Your task to perform on an android device: open app "Airtel Thanks" (install if not already installed) Image 0: 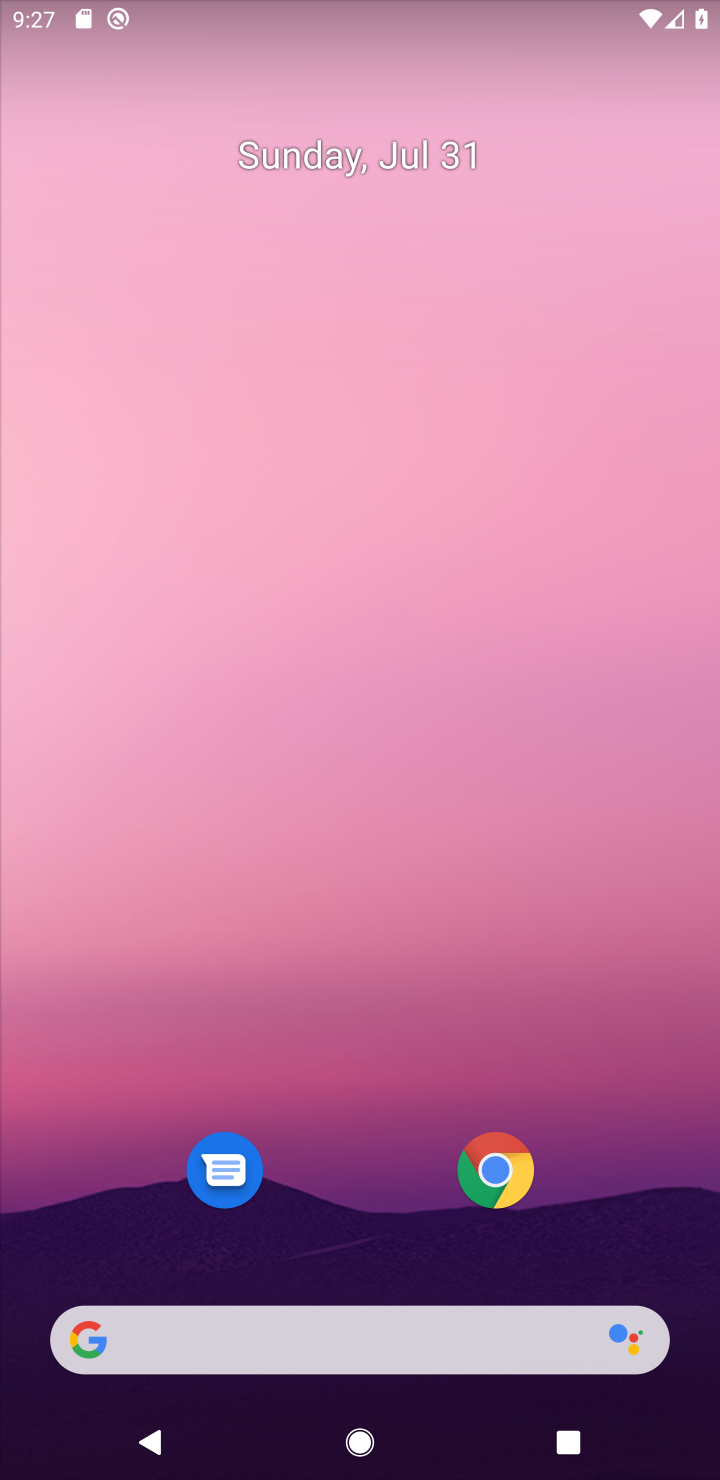
Step 0: press home button
Your task to perform on an android device: open app "Airtel Thanks" (install if not already installed) Image 1: 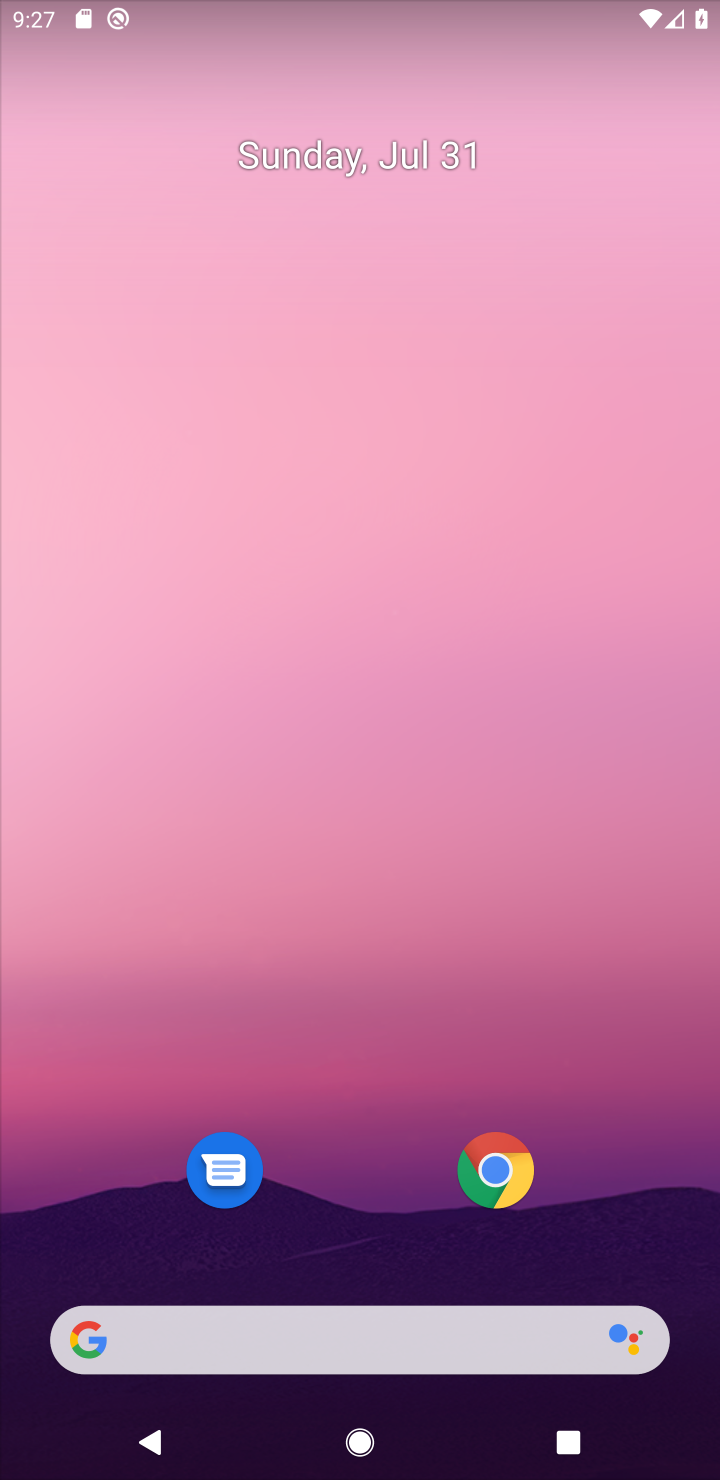
Step 1: drag from (655, 1228) to (462, 131)
Your task to perform on an android device: open app "Airtel Thanks" (install if not already installed) Image 2: 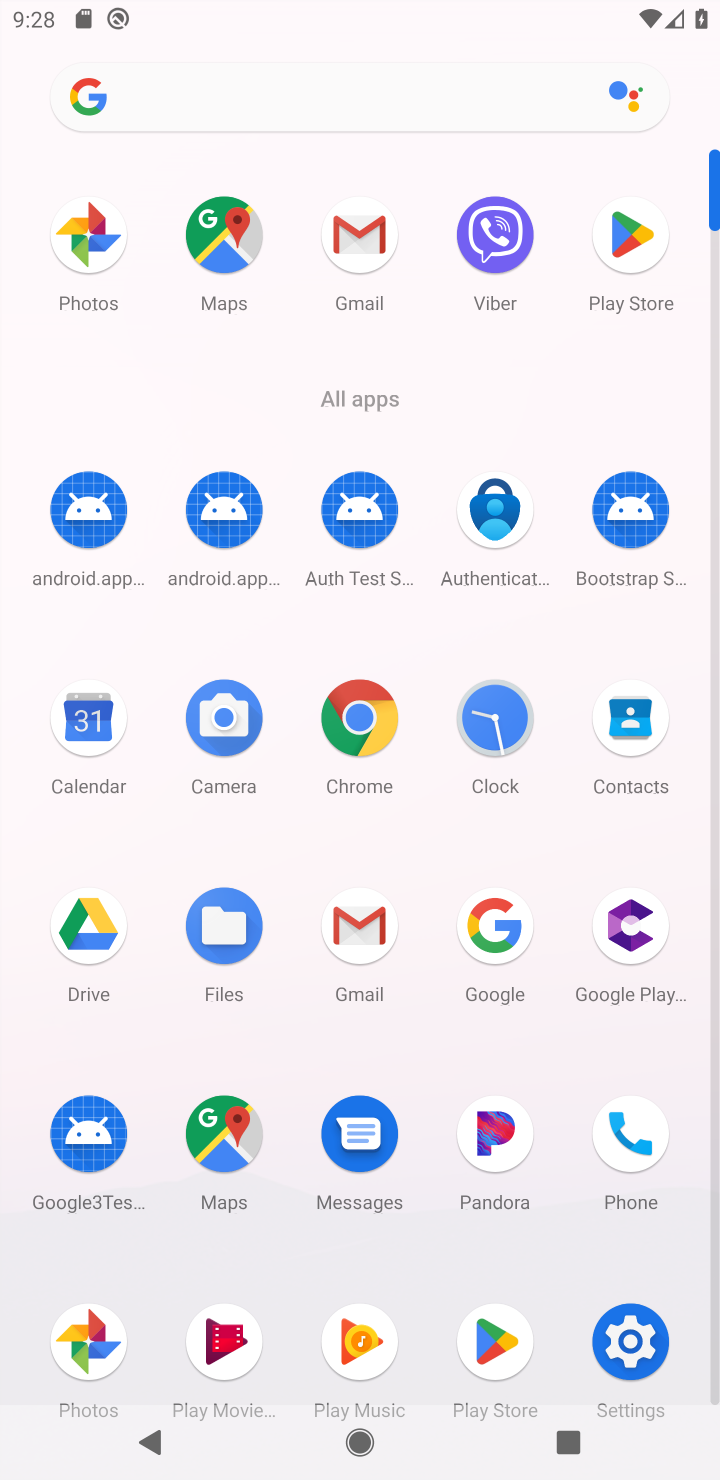
Step 2: click (627, 253)
Your task to perform on an android device: open app "Airtel Thanks" (install if not already installed) Image 3: 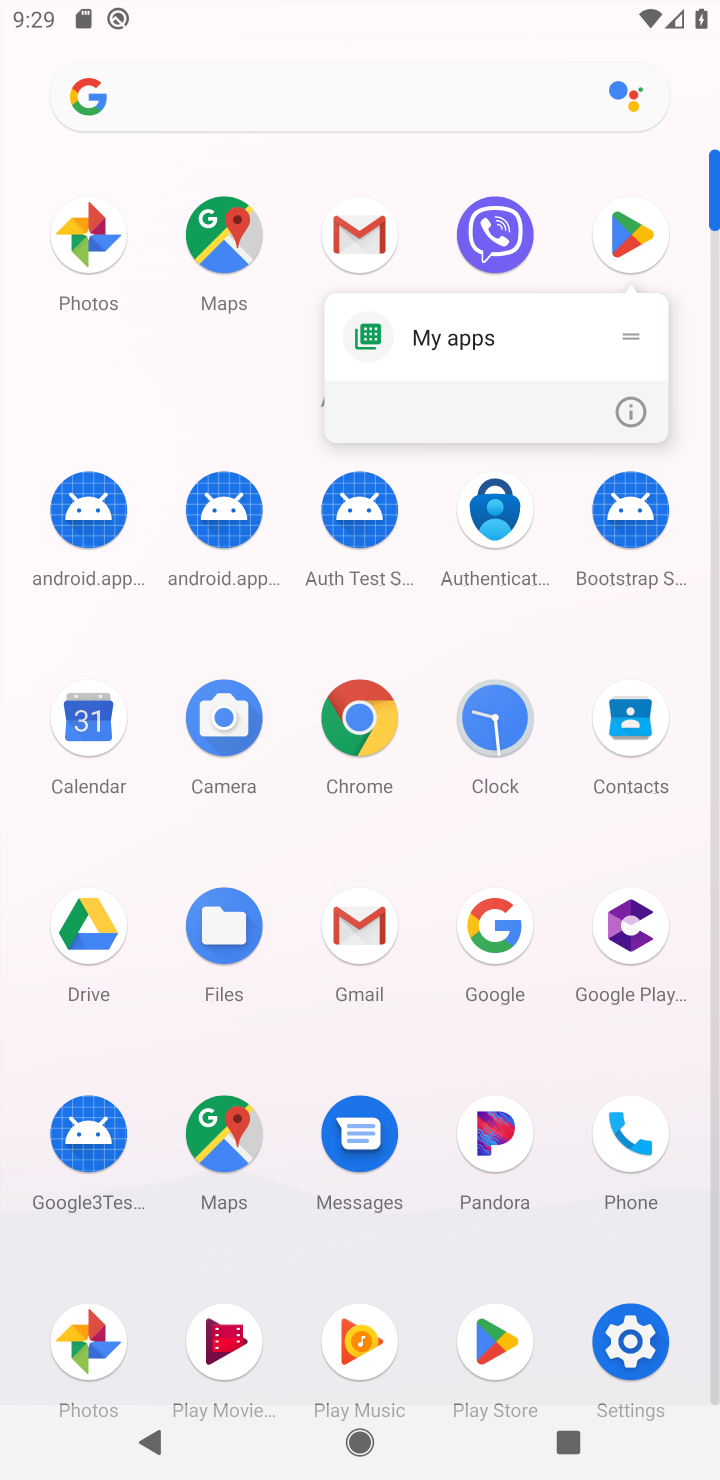
Step 3: click (616, 246)
Your task to perform on an android device: open app "Airtel Thanks" (install if not already installed) Image 4: 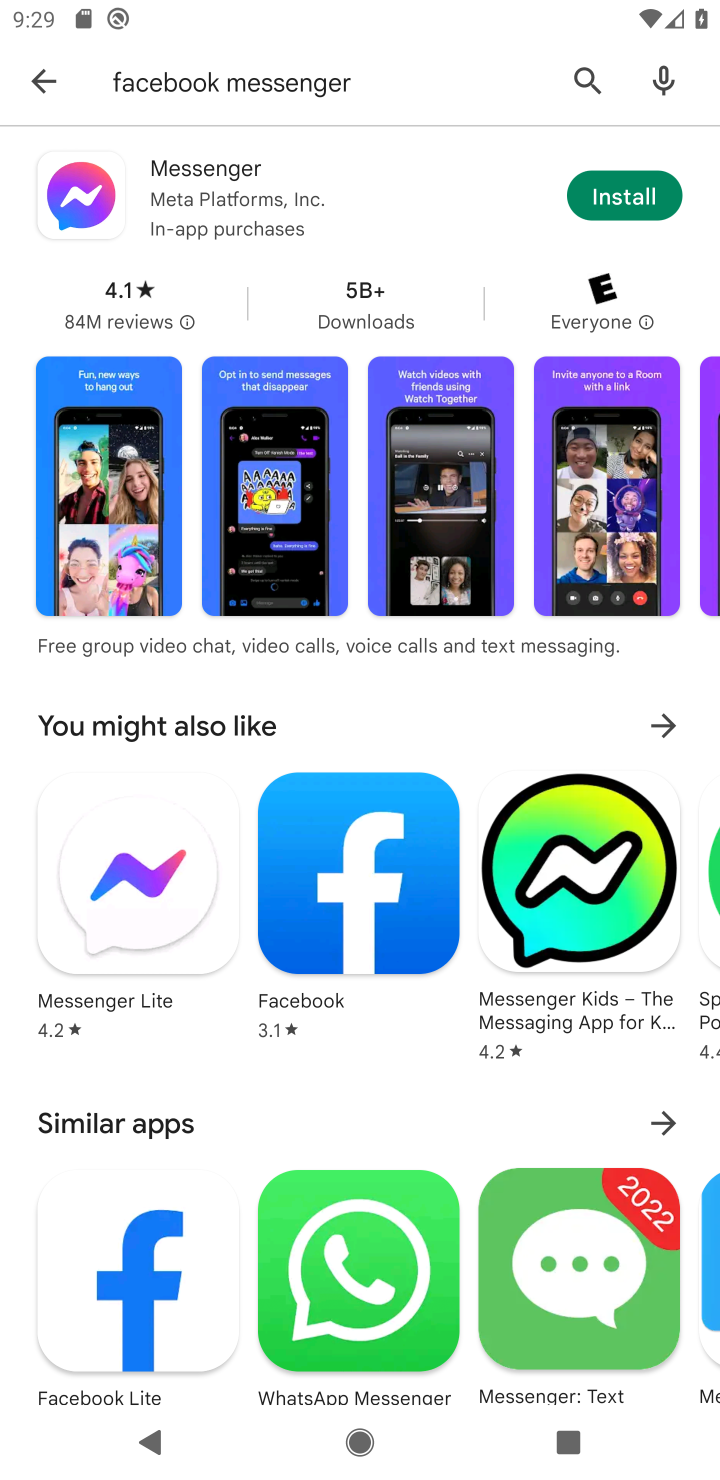
Step 4: press back button
Your task to perform on an android device: open app "Airtel Thanks" (install if not already installed) Image 5: 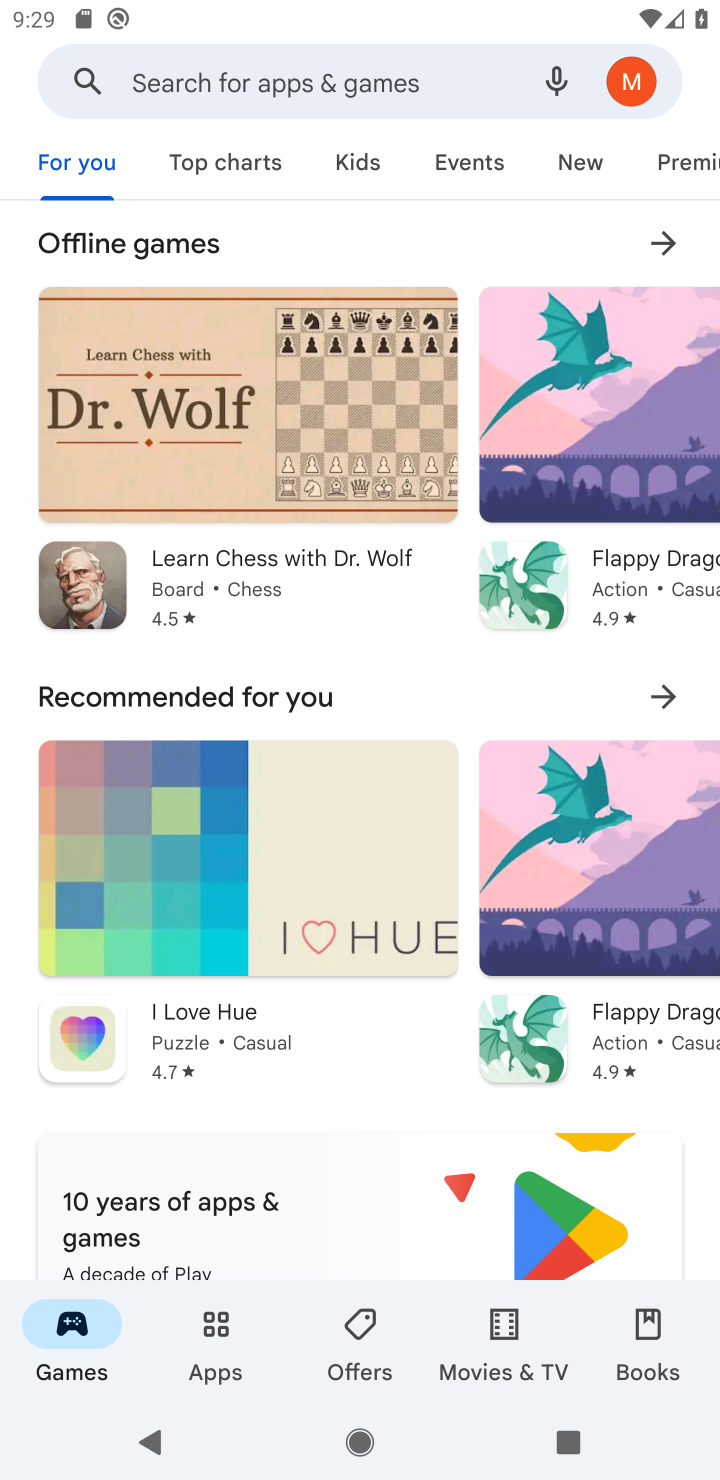
Step 5: click (206, 87)
Your task to perform on an android device: open app "Airtel Thanks" (install if not already installed) Image 6: 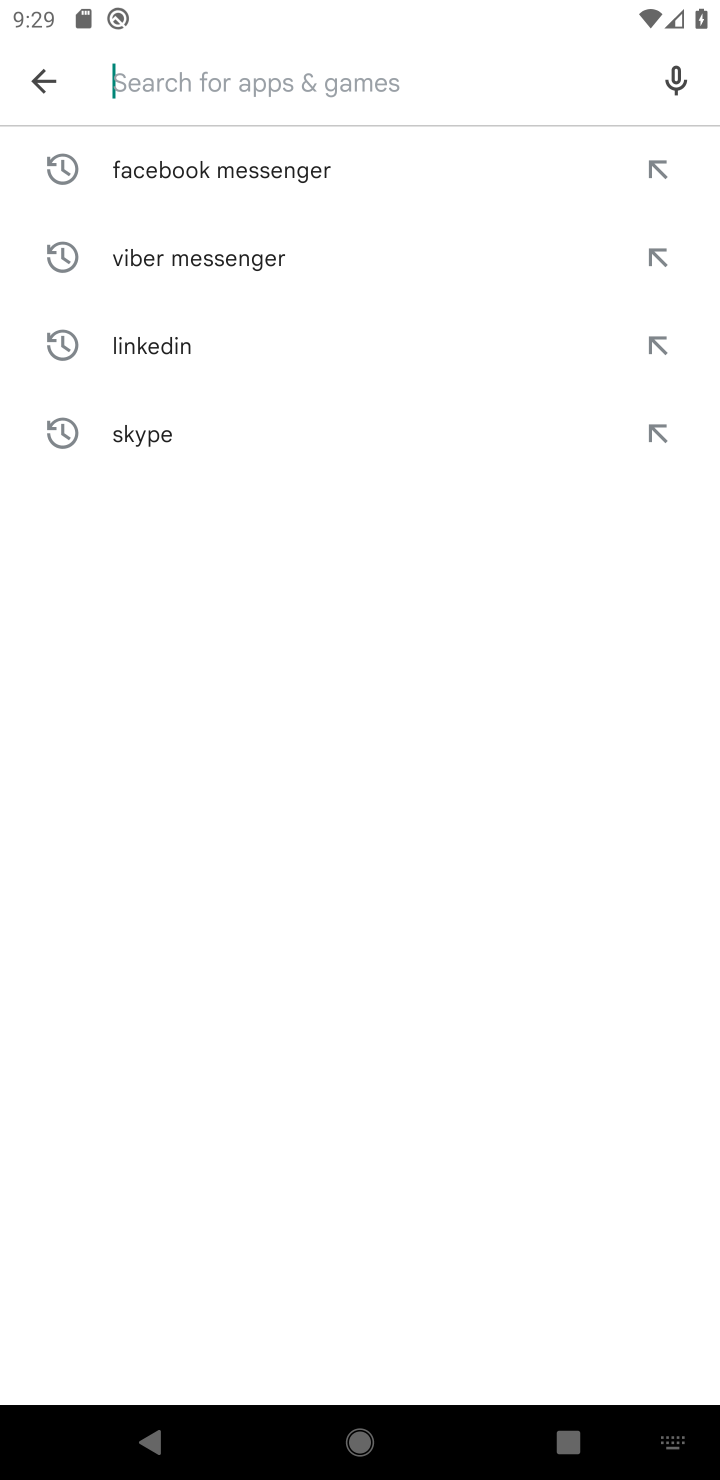
Step 6: type "Airtel Thanks"
Your task to perform on an android device: open app "Airtel Thanks" (install if not already installed) Image 7: 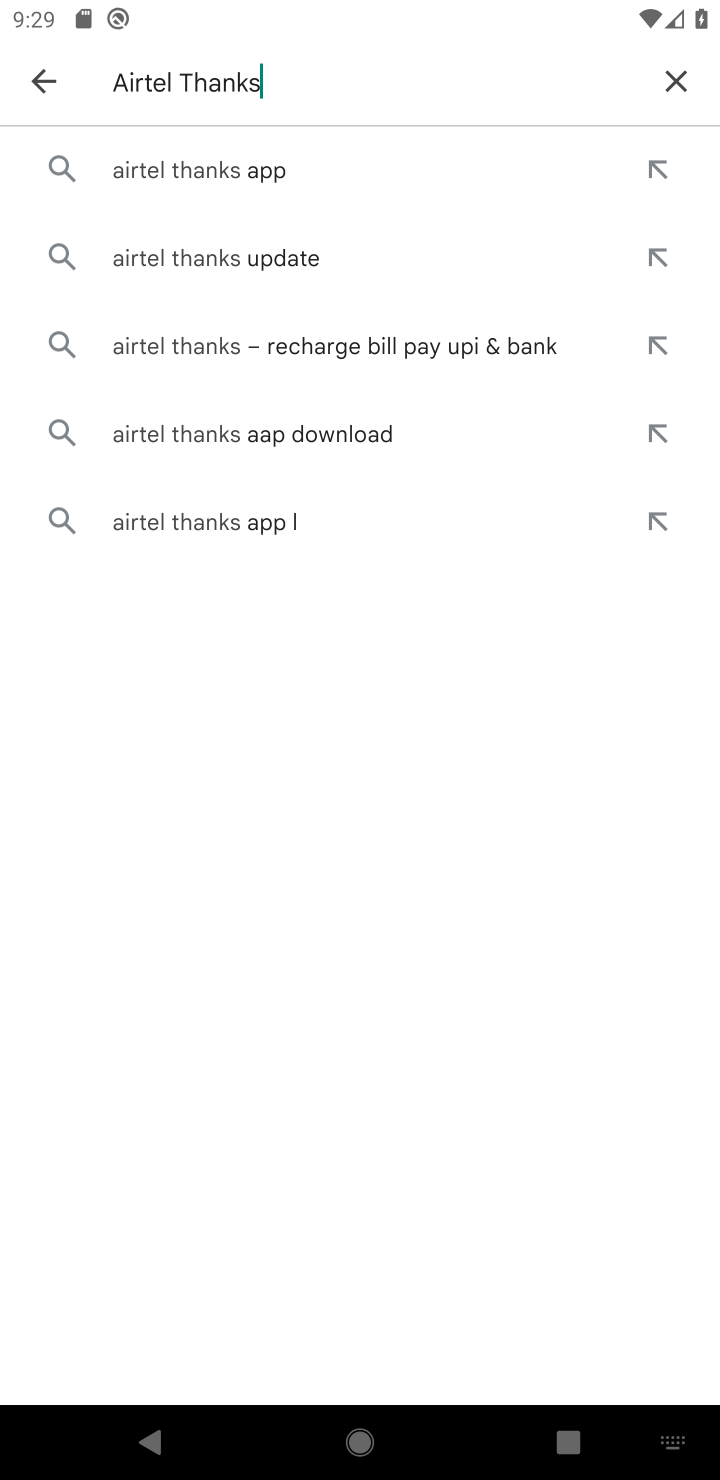
Step 7: click (257, 162)
Your task to perform on an android device: open app "Airtel Thanks" (install if not already installed) Image 8: 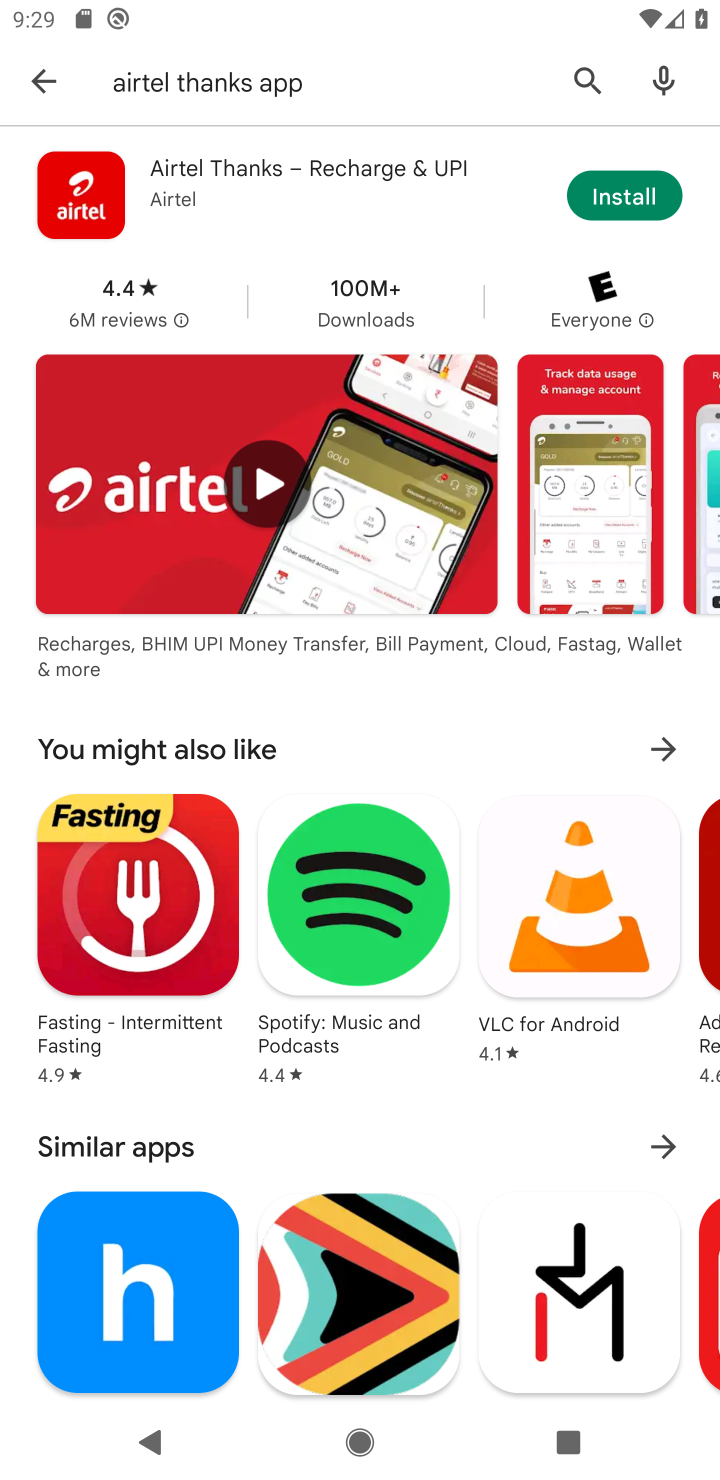
Step 8: task complete